Your task to perform on an android device: What's the weather going to be tomorrow? Image 0: 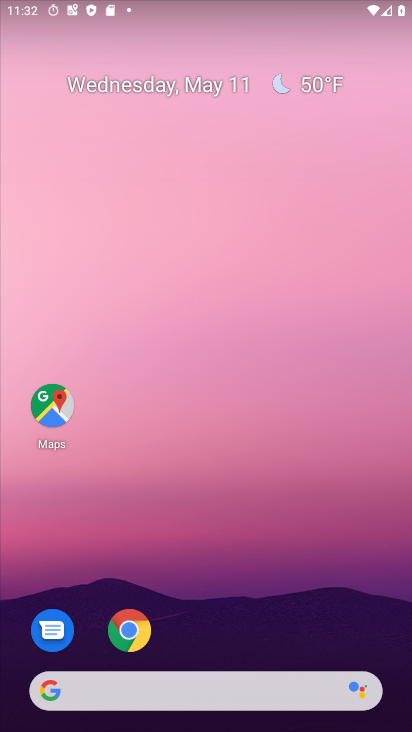
Step 0: click (132, 631)
Your task to perform on an android device: What's the weather going to be tomorrow? Image 1: 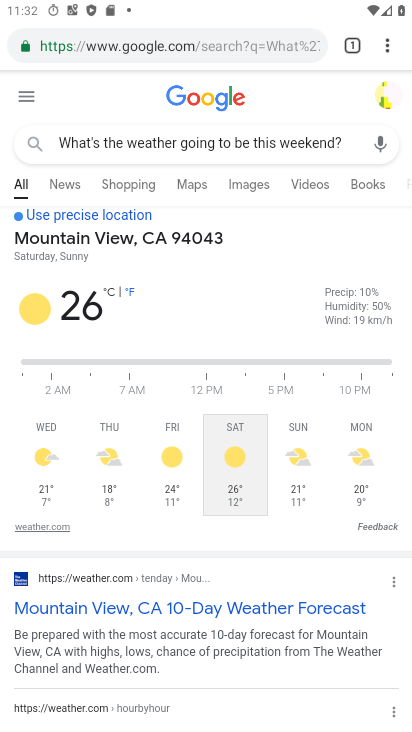
Step 1: click (142, 49)
Your task to perform on an android device: What's the weather going to be tomorrow? Image 2: 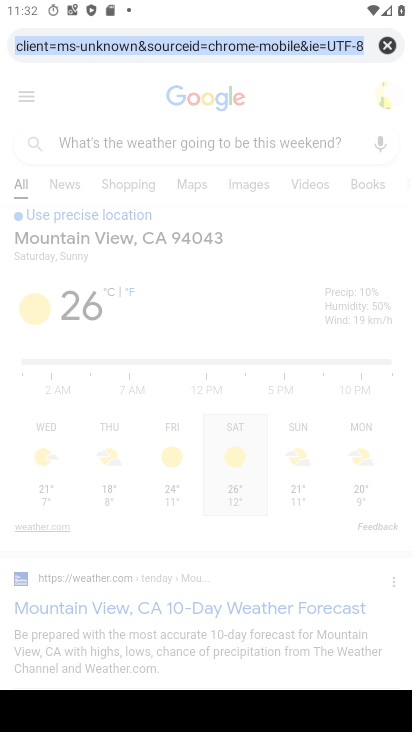
Step 2: type "What's the weather going to be tomorrow?"
Your task to perform on an android device: What's the weather going to be tomorrow? Image 3: 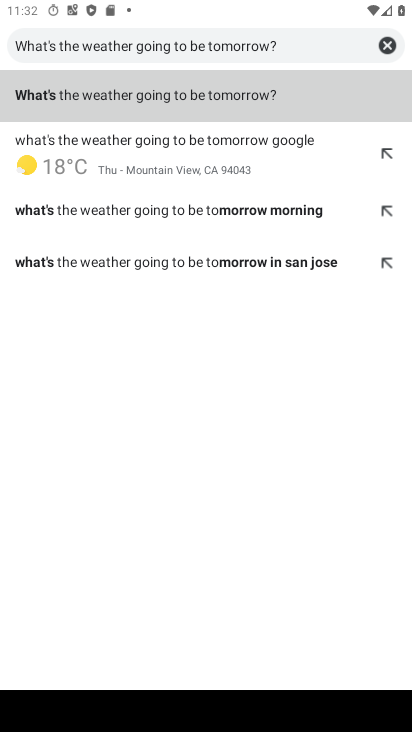
Step 3: click (220, 93)
Your task to perform on an android device: What's the weather going to be tomorrow? Image 4: 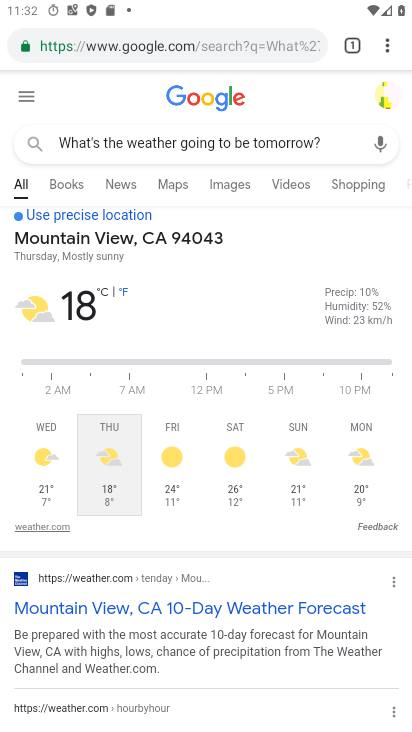
Step 4: task complete